Your task to perform on an android device: Is it going to rain today? Image 0: 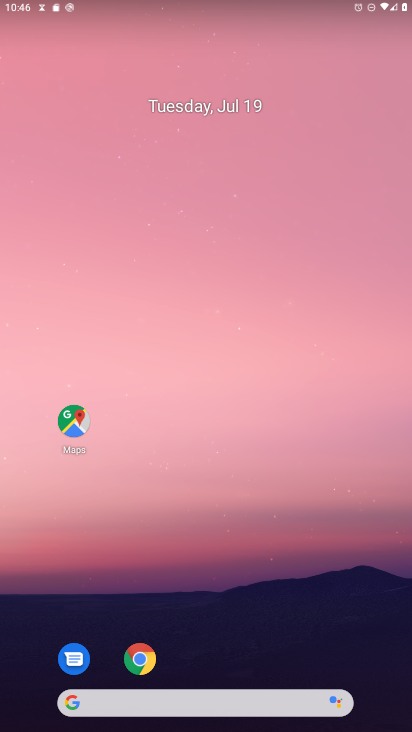
Step 0: drag from (230, 639) to (228, 212)
Your task to perform on an android device: Is it going to rain today? Image 1: 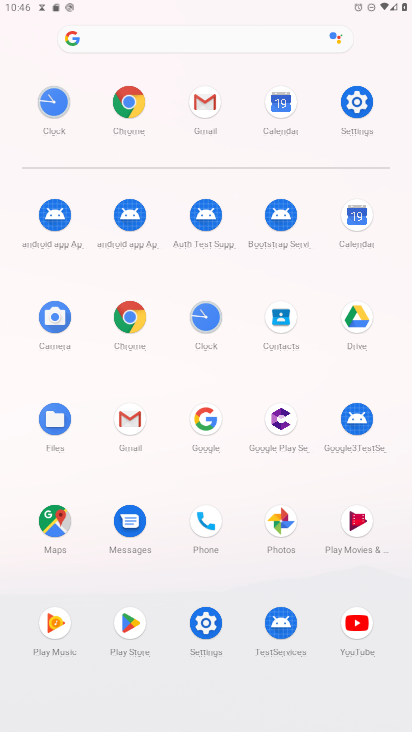
Step 1: click (121, 95)
Your task to perform on an android device: Is it going to rain today? Image 2: 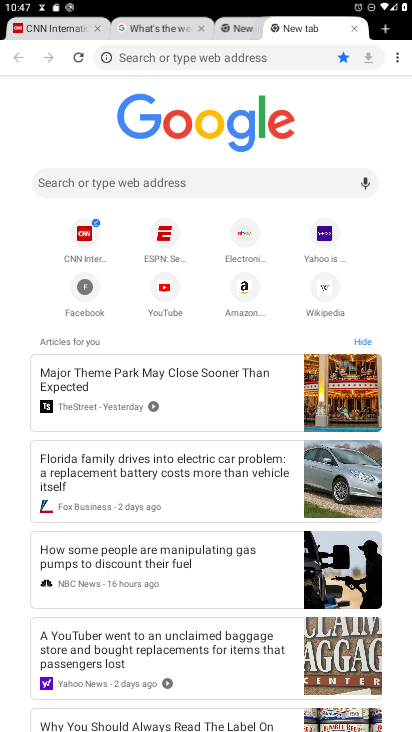
Step 2: click (139, 180)
Your task to perform on an android device: Is it going to rain today? Image 3: 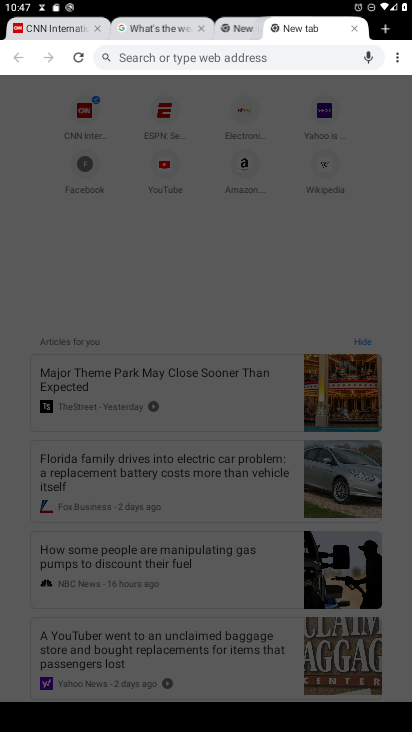
Step 3: type "Is it going to rain today "
Your task to perform on an android device: Is it going to rain today? Image 4: 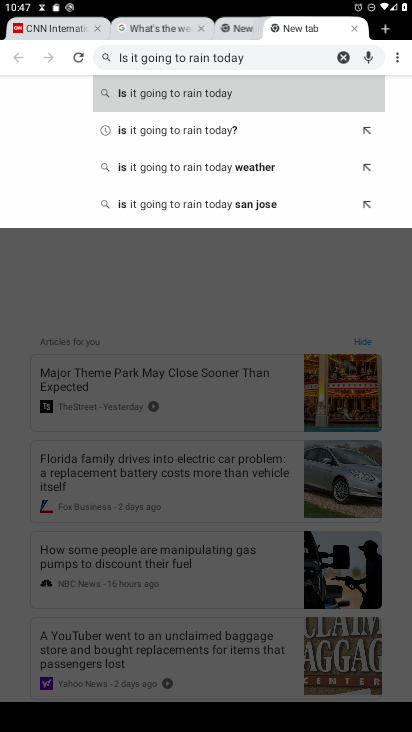
Step 4: click (220, 86)
Your task to perform on an android device: Is it going to rain today? Image 5: 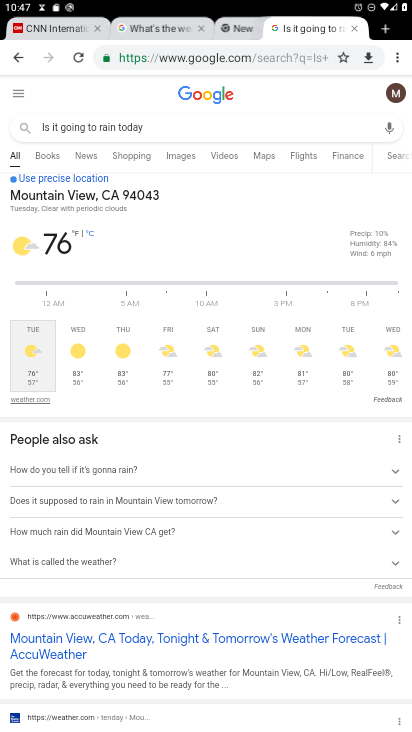
Step 5: task complete